Your task to perform on an android device: open chrome and create a bookmark for the current page Image 0: 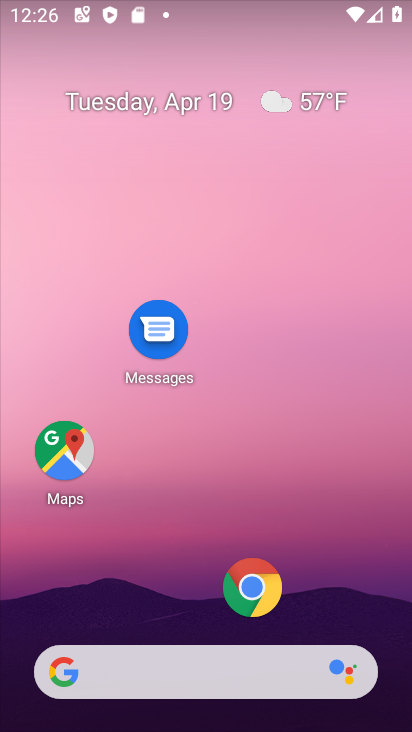
Step 0: click (252, 588)
Your task to perform on an android device: open chrome and create a bookmark for the current page Image 1: 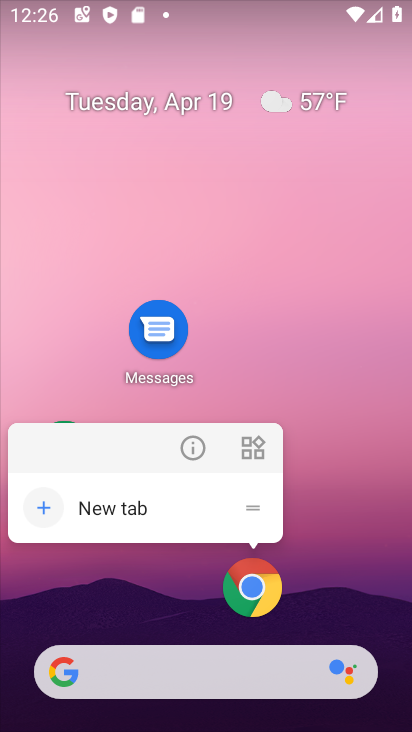
Step 1: click (252, 587)
Your task to perform on an android device: open chrome and create a bookmark for the current page Image 2: 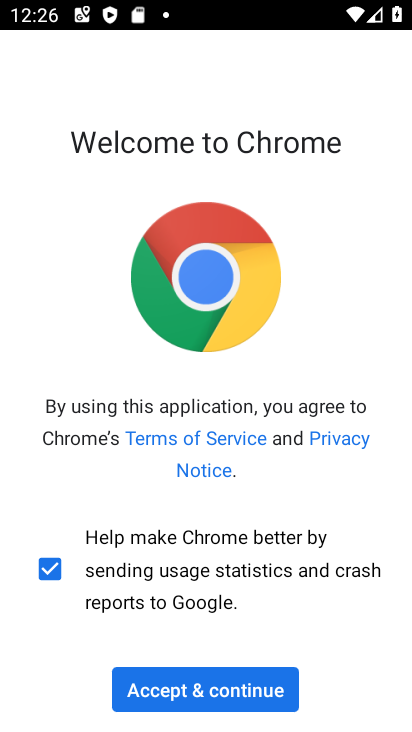
Step 2: click (195, 691)
Your task to perform on an android device: open chrome and create a bookmark for the current page Image 3: 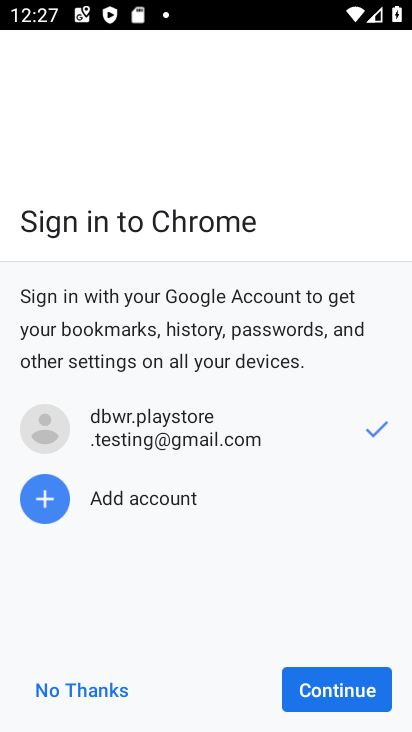
Step 3: click (332, 697)
Your task to perform on an android device: open chrome and create a bookmark for the current page Image 4: 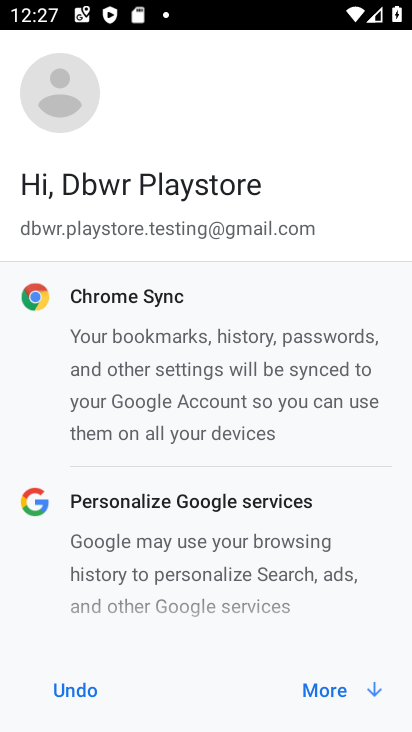
Step 4: click (332, 697)
Your task to perform on an android device: open chrome and create a bookmark for the current page Image 5: 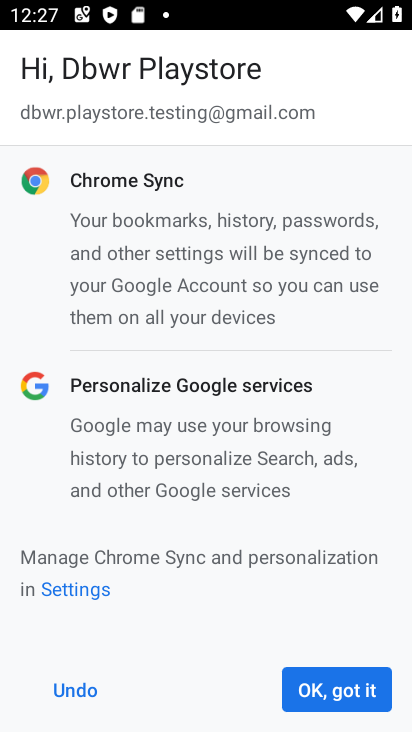
Step 5: click (343, 696)
Your task to perform on an android device: open chrome and create a bookmark for the current page Image 6: 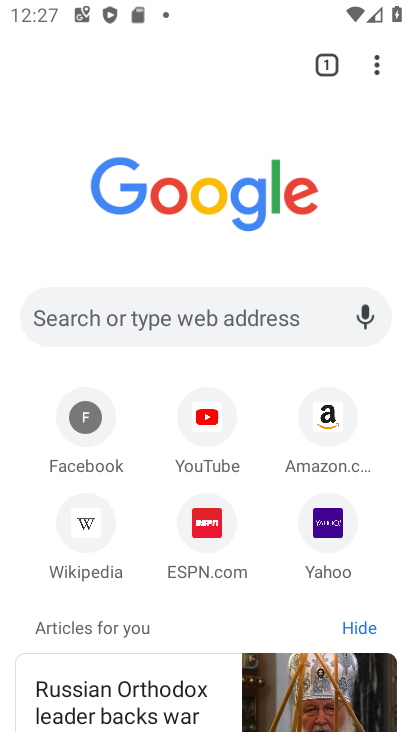
Step 6: click (169, 326)
Your task to perform on an android device: open chrome and create a bookmark for the current page Image 7: 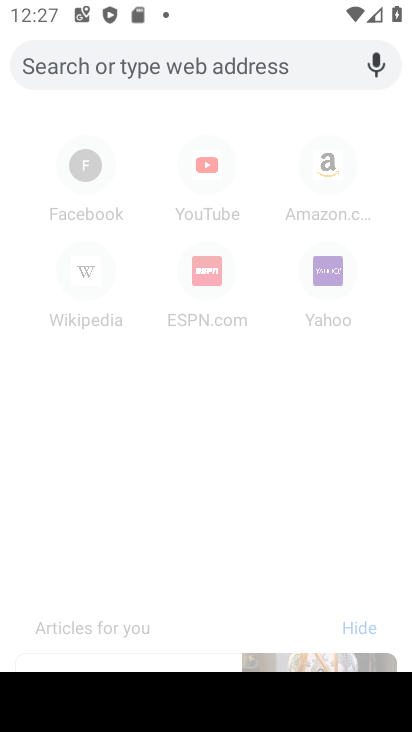
Step 7: type "oyo.com"
Your task to perform on an android device: open chrome and create a bookmark for the current page Image 8: 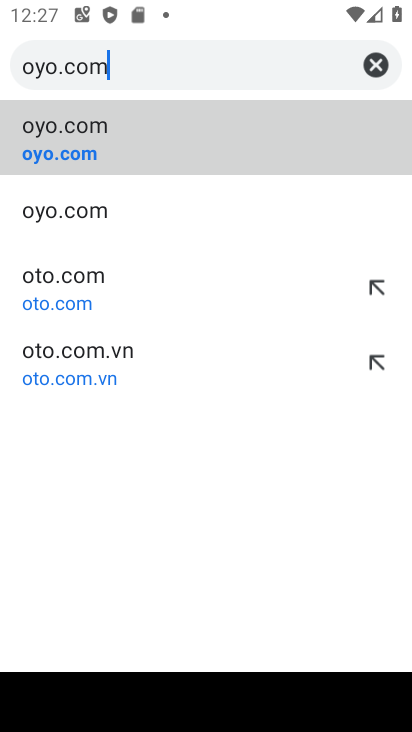
Step 8: click (125, 144)
Your task to perform on an android device: open chrome and create a bookmark for the current page Image 9: 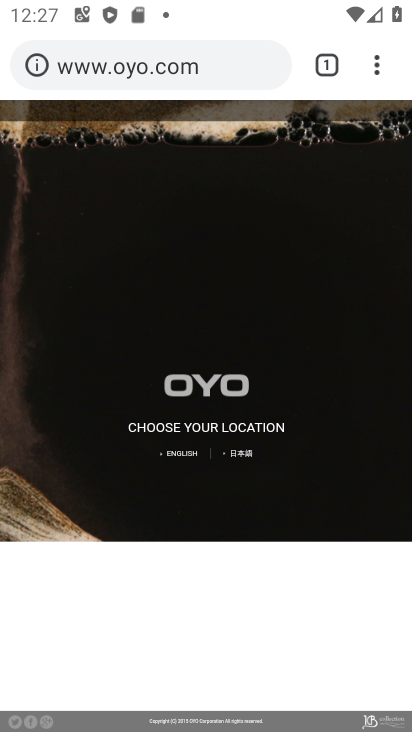
Step 9: click (374, 63)
Your task to perform on an android device: open chrome and create a bookmark for the current page Image 10: 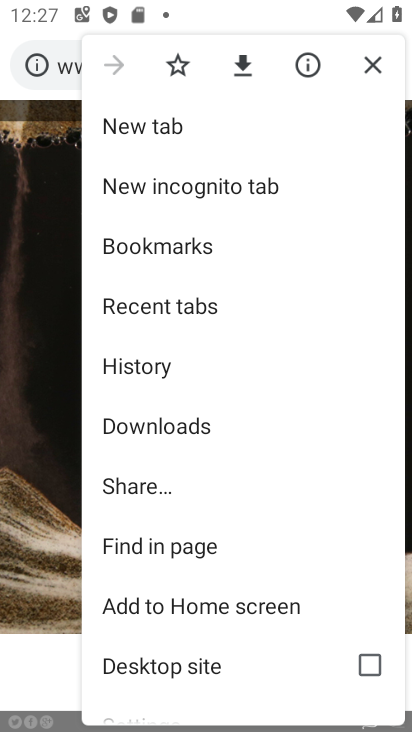
Step 10: click (178, 66)
Your task to perform on an android device: open chrome and create a bookmark for the current page Image 11: 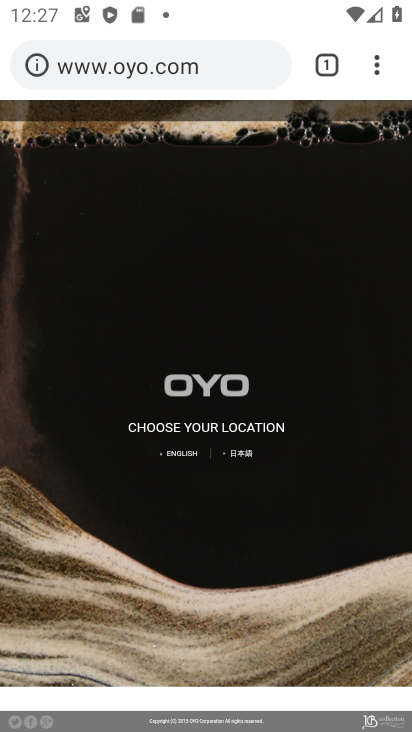
Step 11: click (179, 62)
Your task to perform on an android device: open chrome and create a bookmark for the current page Image 12: 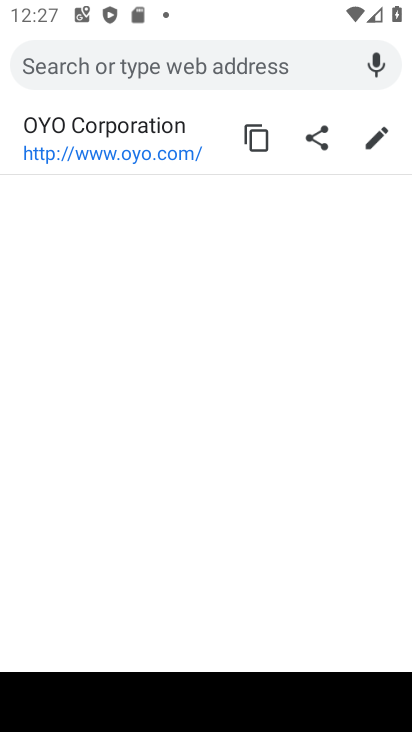
Step 12: task complete